Your task to perform on an android device: View the shopping cart on bestbuy.com. Search for "razer blade" on bestbuy.com, select the first entry, and add it to the cart. Image 0: 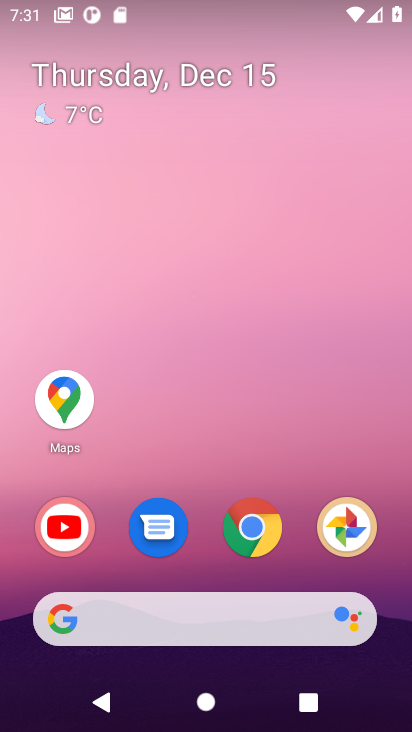
Step 0: click (258, 533)
Your task to perform on an android device: View the shopping cart on bestbuy.com. Search for "razer blade" on bestbuy.com, select the first entry, and add it to the cart. Image 1: 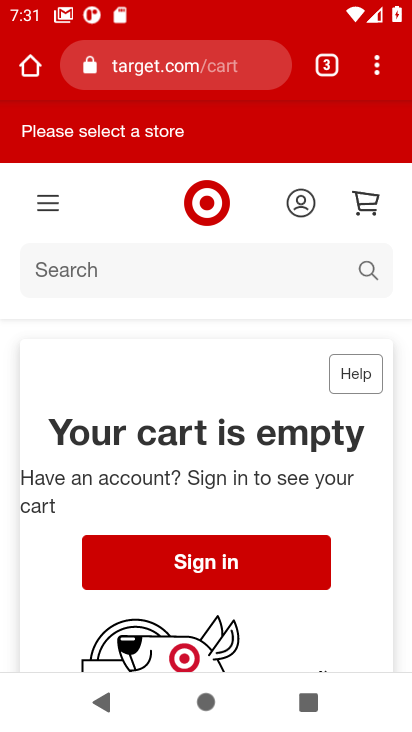
Step 1: click (143, 66)
Your task to perform on an android device: View the shopping cart on bestbuy.com. Search for "razer blade" on bestbuy.com, select the first entry, and add it to the cart. Image 2: 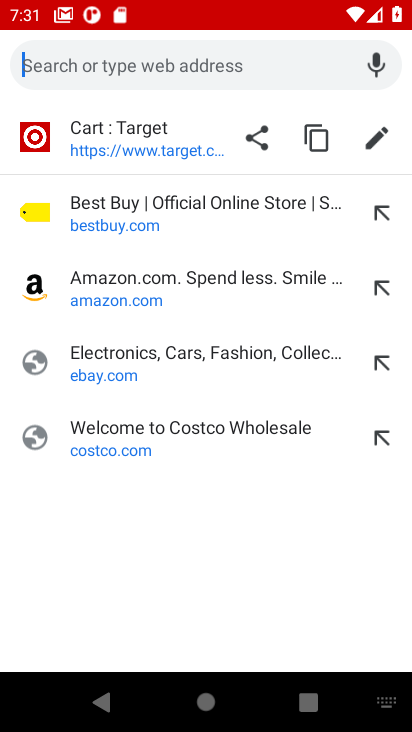
Step 2: click (220, 213)
Your task to perform on an android device: View the shopping cart on bestbuy.com. Search for "razer blade" on bestbuy.com, select the first entry, and add it to the cart. Image 3: 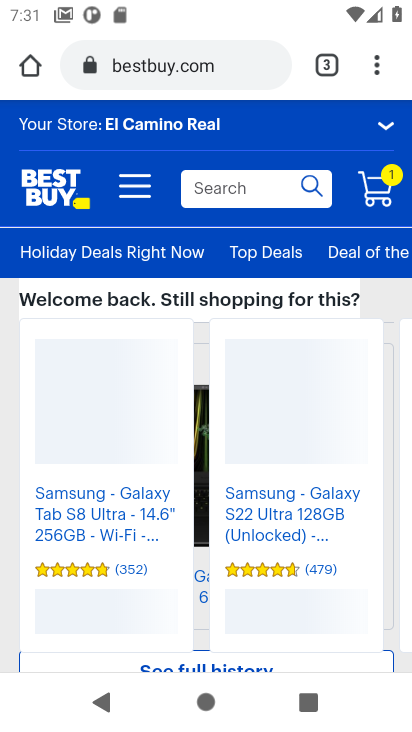
Step 3: click (229, 188)
Your task to perform on an android device: View the shopping cart on bestbuy.com. Search for "razer blade" on bestbuy.com, select the first entry, and add it to the cart. Image 4: 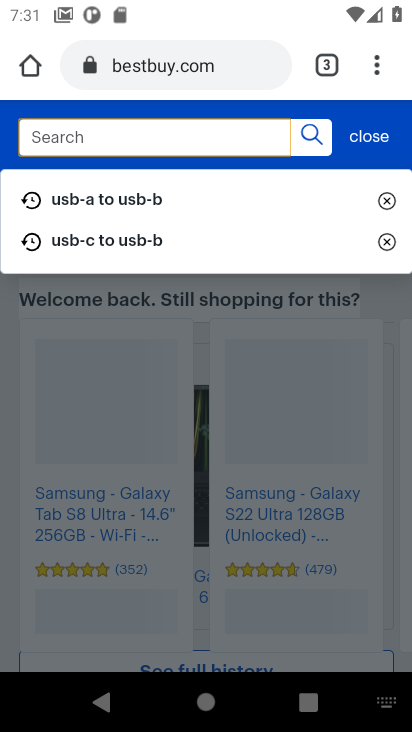
Step 4: type "razer blade"
Your task to perform on an android device: View the shopping cart on bestbuy.com. Search for "razer blade" on bestbuy.com, select the first entry, and add it to the cart. Image 5: 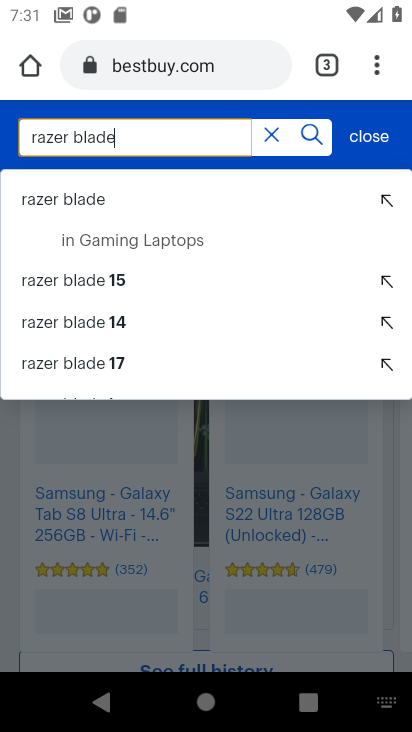
Step 5: click (320, 142)
Your task to perform on an android device: View the shopping cart on bestbuy.com. Search for "razer blade" on bestbuy.com, select the first entry, and add it to the cart. Image 6: 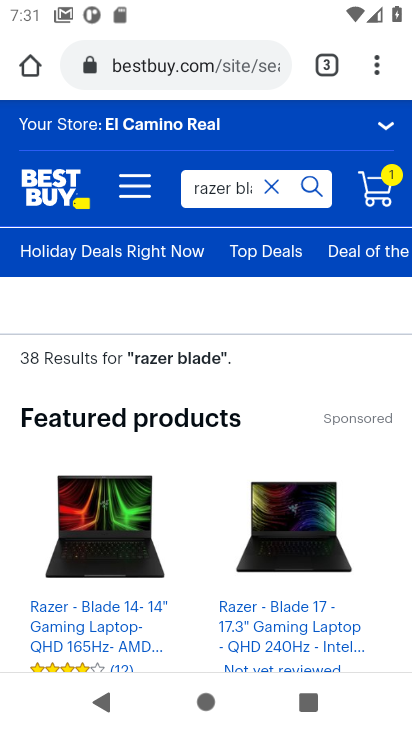
Step 6: click (100, 625)
Your task to perform on an android device: View the shopping cart on bestbuy.com. Search for "razer blade" on bestbuy.com, select the first entry, and add it to the cart. Image 7: 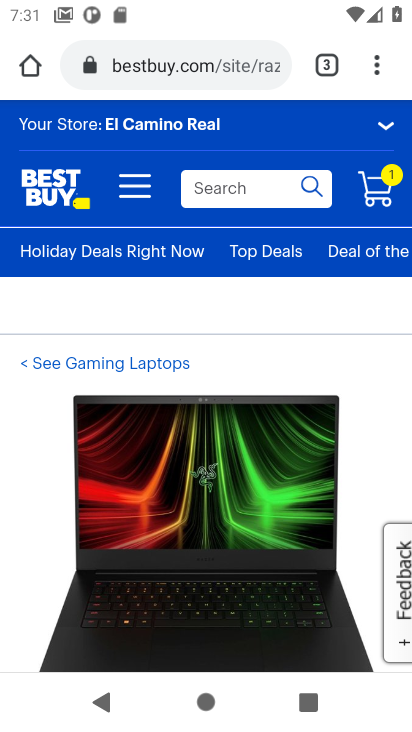
Step 7: task complete